Your task to perform on an android device: Search for pizza restaurants on Maps Image 0: 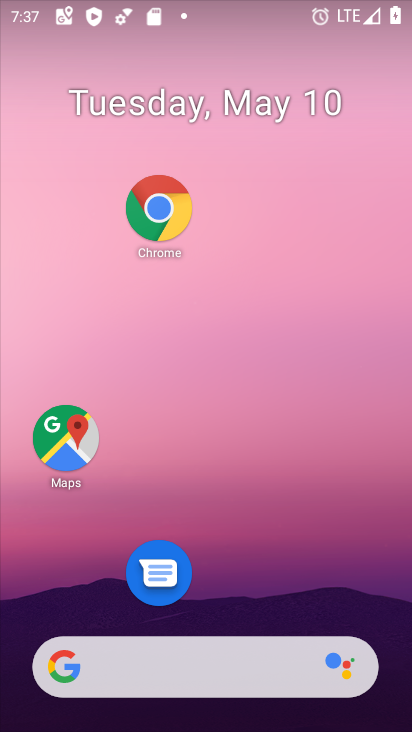
Step 0: drag from (252, 692) to (321, 168)
Your task to perform on an android device: Search for pizza restaurants on Maps Image 1: 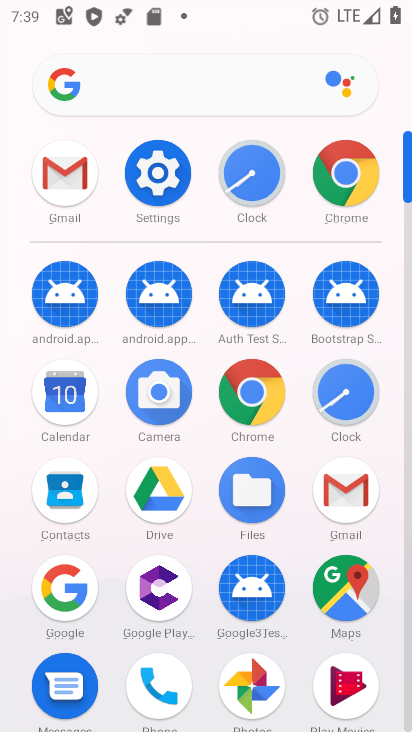
Step 1: click (326, 574)
Your task to perform on an android device: Search for pizza restaurants on Maps Image 2: 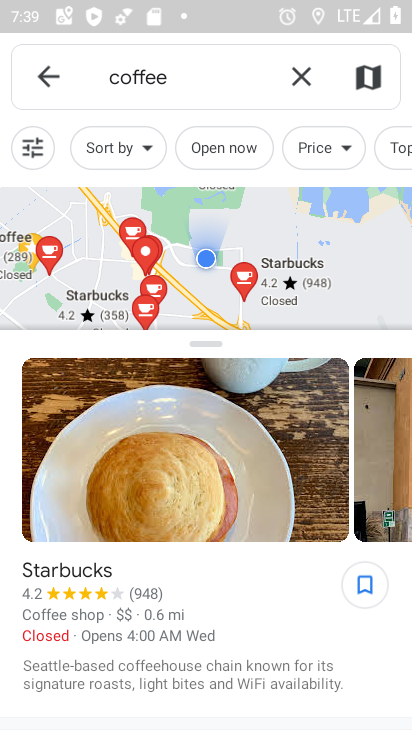
Step 2: click (300, 69)
Your task to perform on an android device: Search for pizza restaurants on Maps Image 3: 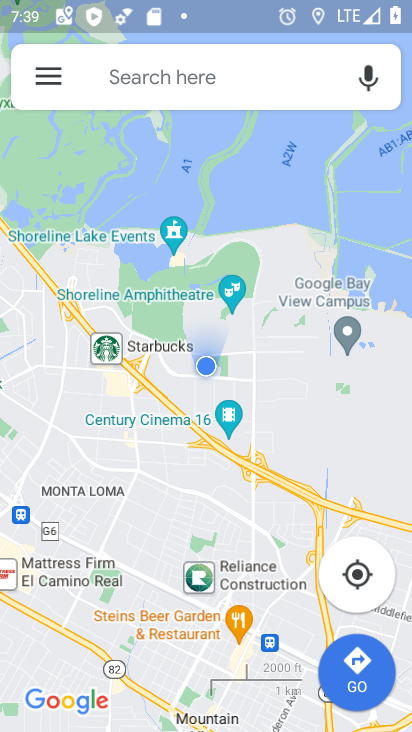
Step 3: click (186, 76)
Your task to perform on an android device: Search for pizza restaurants on Maps Image 4: 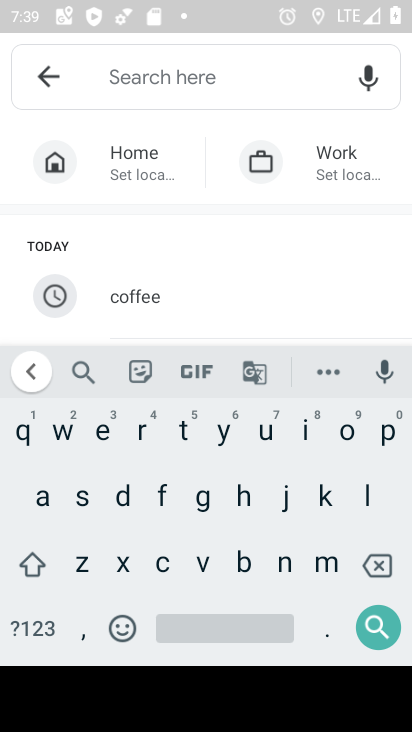
Step 4: click (389, 442)
Your task to perform on an android device: Search for pizza restaurants on Maps Image 5: 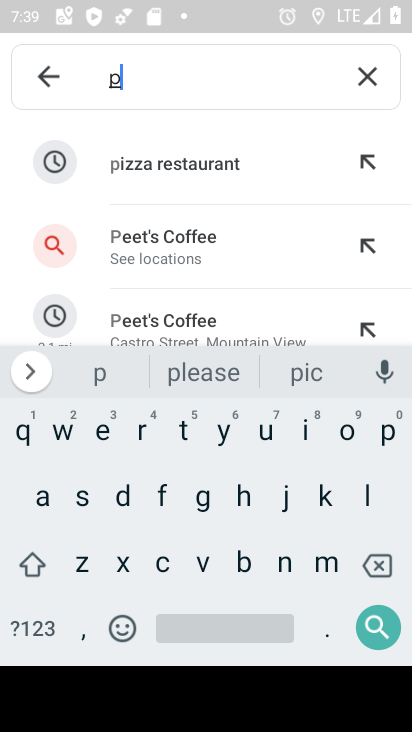
Step 5: click (208, 159)
Your task to perform on an android device: Search for pizza restaurants on Maps Image 6: 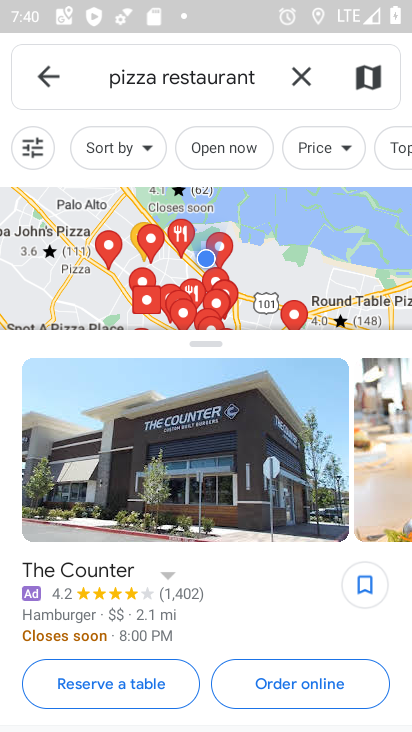
Step 6: click (268, 242)
Your task to perform on an android device: Search for pizza restaurants on Maps Image 7: 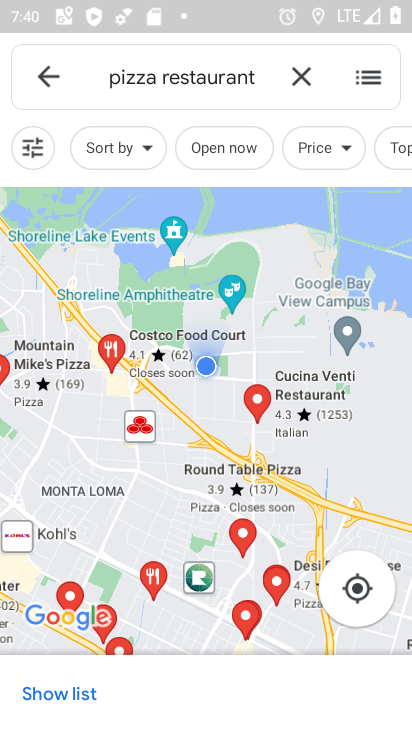
Step 7: task complete